Your task to perform on an android device: Set the phone to "Do not disturb". Image 0: 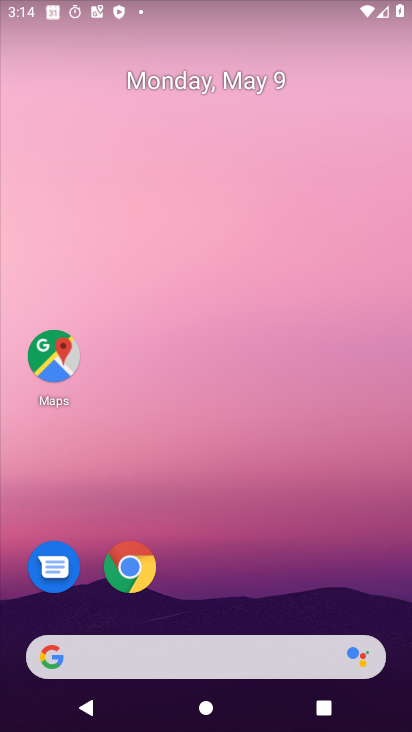
Step 0: drag from (231, 579) to (242, 63)
Your task to perform on an android device: Set the phone to "Do not disturb". Image 1: 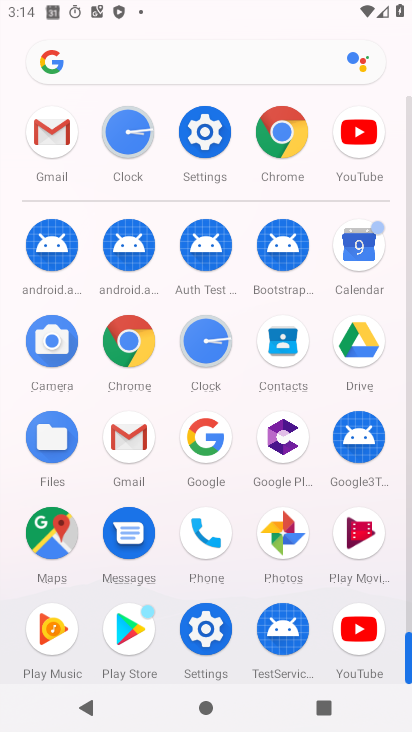
Step 1: click (205, 138)
Your task to perform on an android device: Set the phone to "Do not disturb". Image 2: 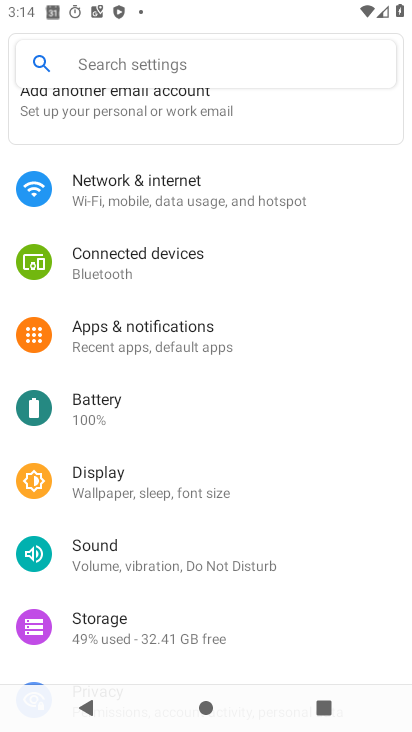
Step 2: click (198, 561)
Your task to perform on an android device: Set the phone to "Do not disturb". Image 3: 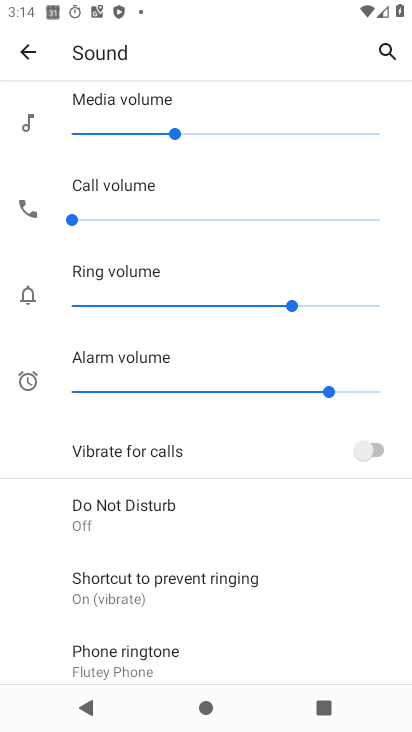
Step 3: click (145, 512)
Your task to perform on an android device: Set the phone to "Do not disturb". Image 4: 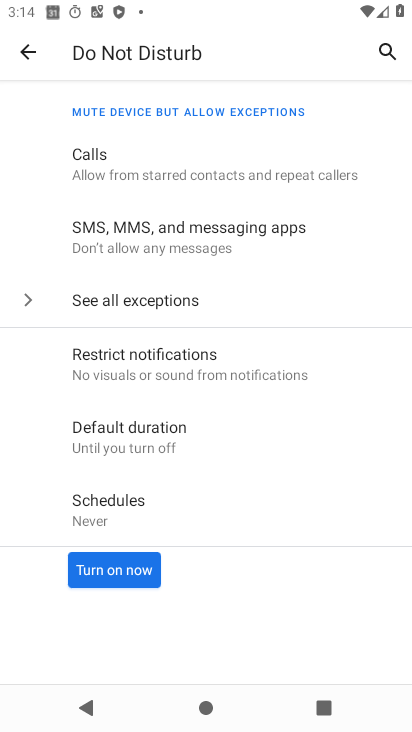
Step 4: click (131, 575)
Your task to perform on an android device: Set the phone to "Do not disturb". Image 5: 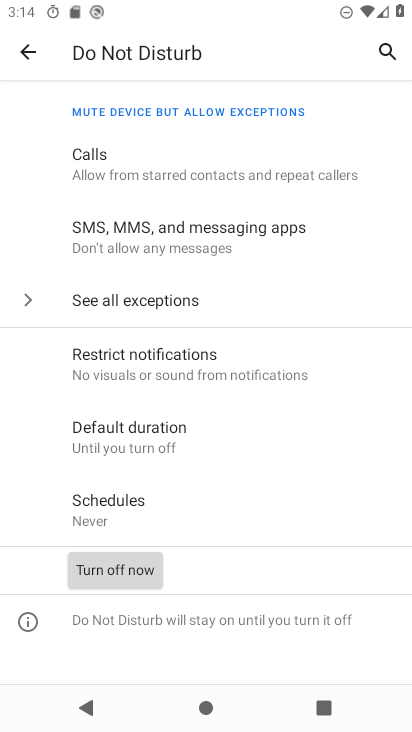
Step 5: task complete